Your task to perform on an android device: Toggle the flashlight Image 0: 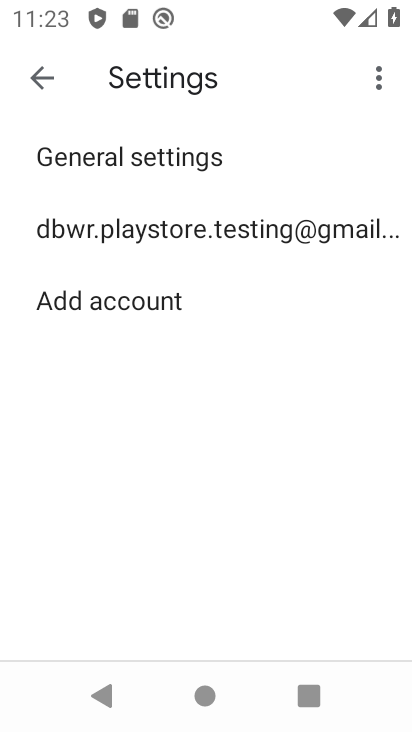
Step 0: press home button
Your task to perform on an android device: Toggle the flashlight Image 1: 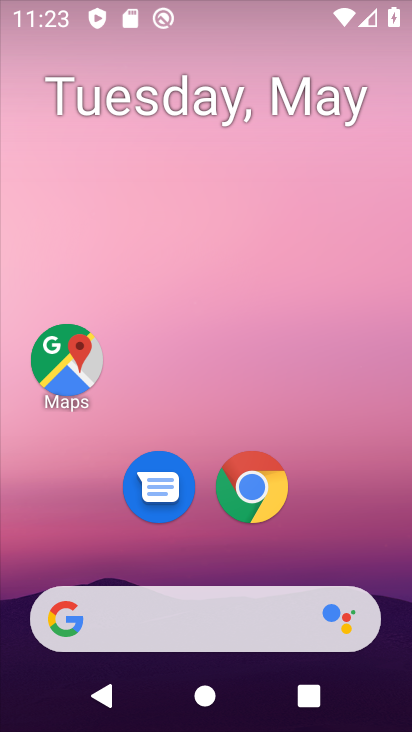
Step 1: drag from (280, 585) to (303, 318)
Your task to perform on an android device: Toggle the flashlight Image 2: 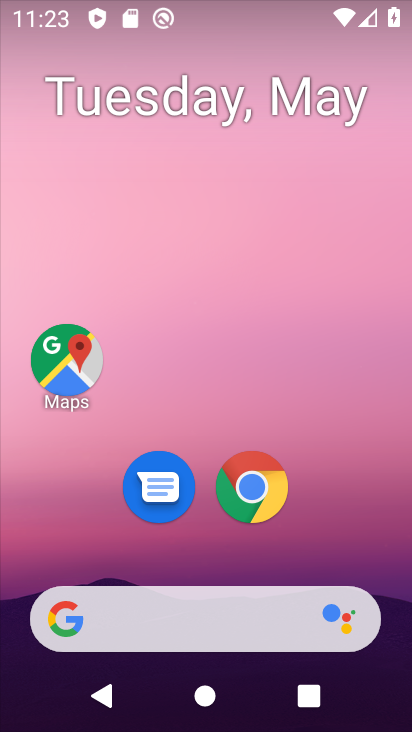
Step 2: drag from (332, 525) to (331, 283)
Your task to perform on an android device: Toggle the flashlight Image 3: 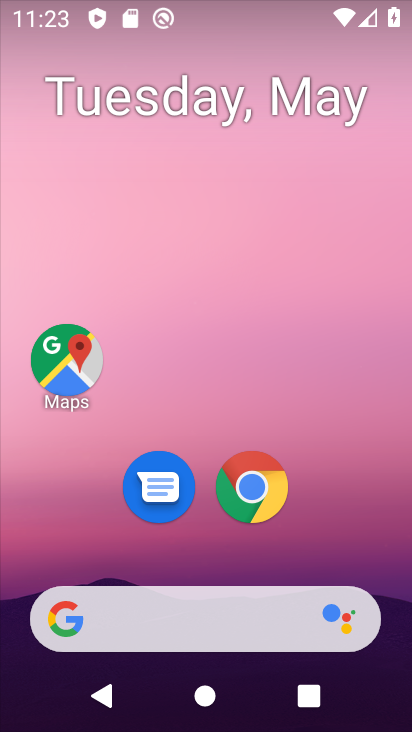
Step 3: drag from (276, 450) to (288, 262)
Your task to perform on an android device: Toggle the flashlight Image 4: 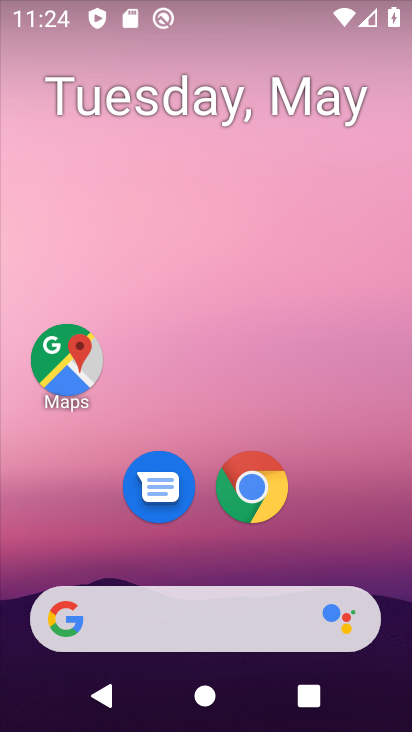
Step 4: drag from (234, 581) to (311, 252)
Your task to perform on an android device: Toggle the flashlight Image 5: 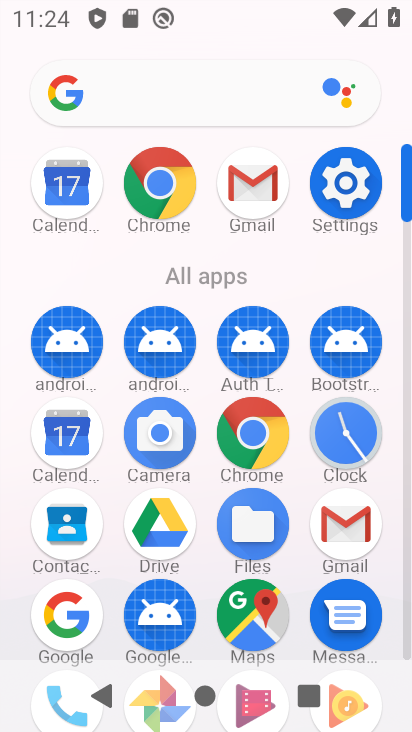
Step 5: click (338, 177)
Your task to perform on an android device: Toggle the flashlight Image 6: 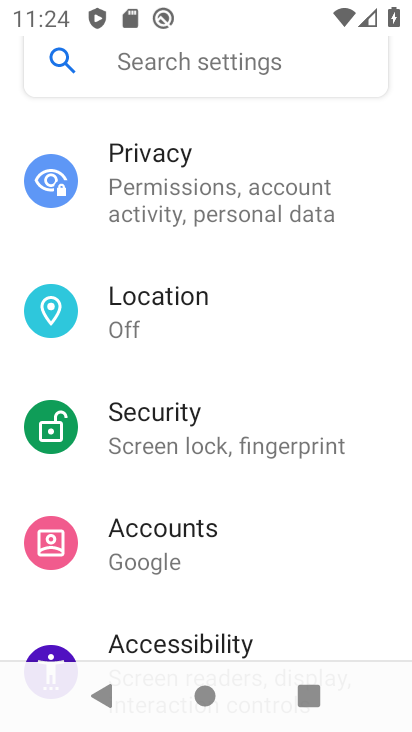
Step 6: task complete